Your task to perform on an android device: turn off wifi Image 0: 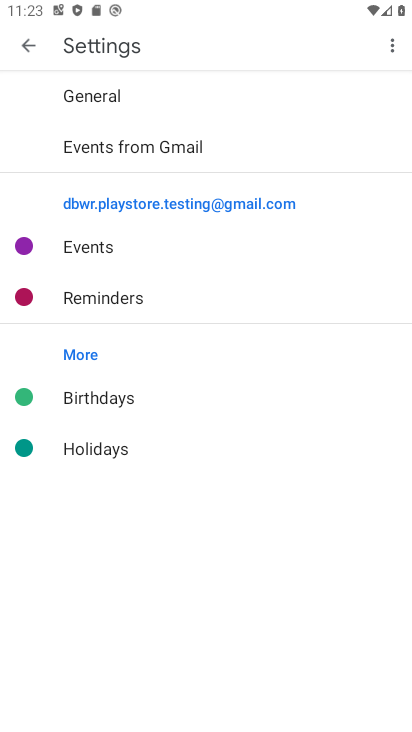
Step 0: press home button
Your task to perform on an android device: turn off wifi Image 1: 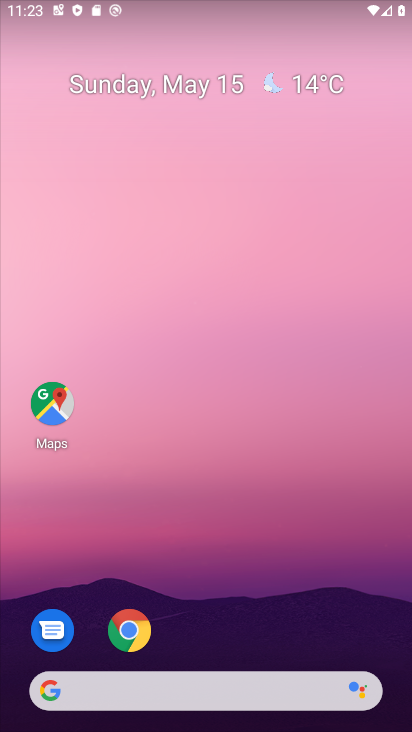
Step 1: click (177, 16)
Your task to perform on an android device: turn off wifi Image 2: 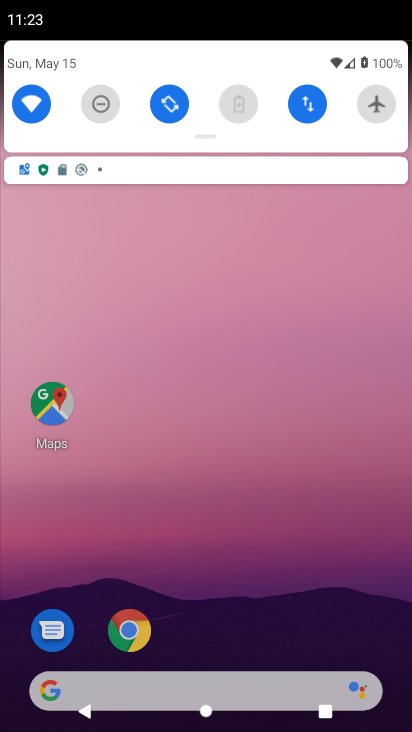
Step 2: drag from (193, 12) to (123, 544)
Your task to perform on an android device: turn off wifi Image 3: 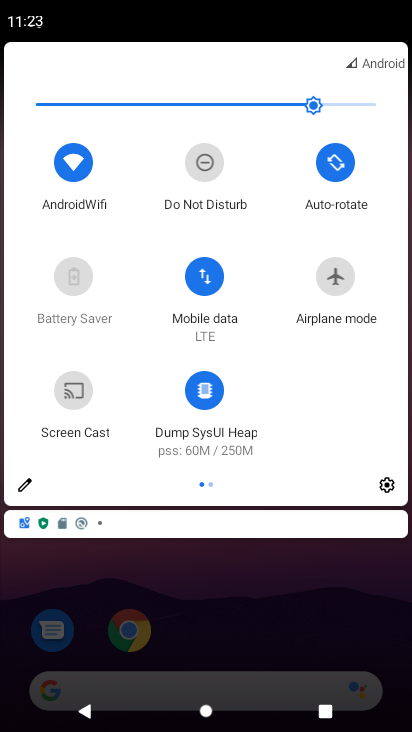
Step 3: click (65, 166)
Your task to perform on an android device: turn off wifi Image 4: 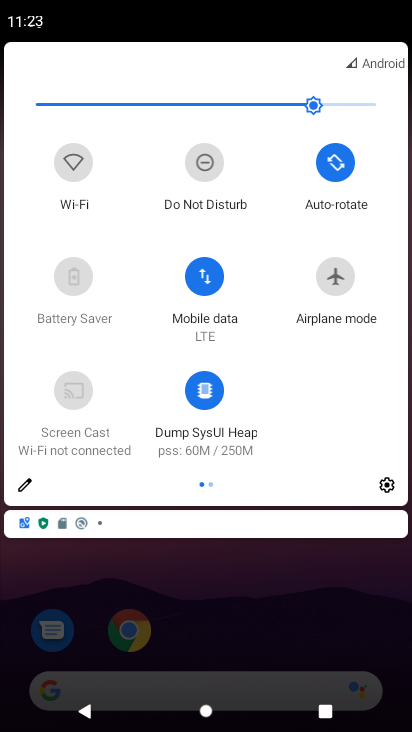
Step 4: task complete